Your task to perform on an android device: toggle data saver in the chrome app Image 0: 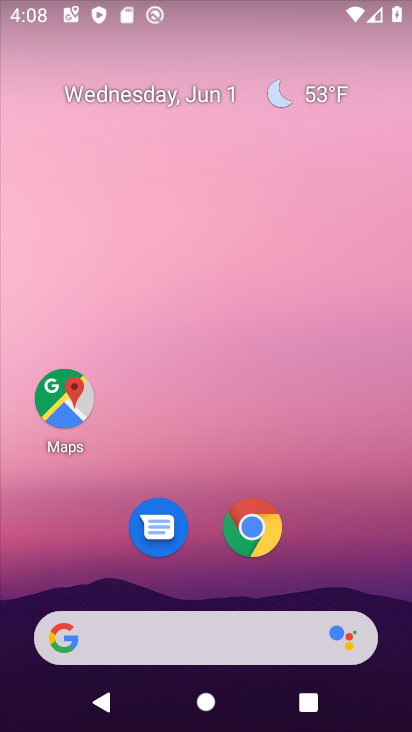
Step 0: drag from (289, 562) to (341, 102)
Your task to perform on an android device: toggle data saver in the chrome app Image 1: 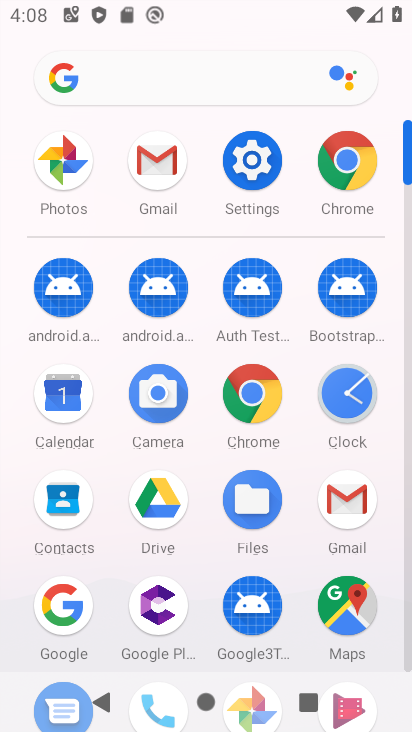
Step 1: click (257, 380)
Your task to perform on an android device: toggle data saver in the chrome app Image 2: 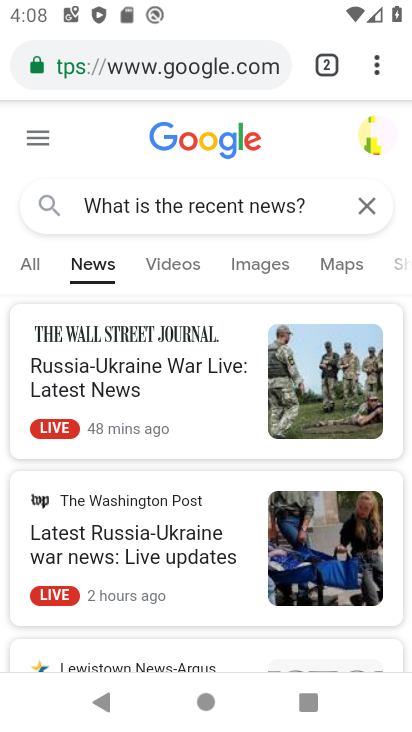
Step 2: drag from (373, 72) to (200, 577)
Your task to perform on an android device: toggle data saver in the chrome app Image 3: 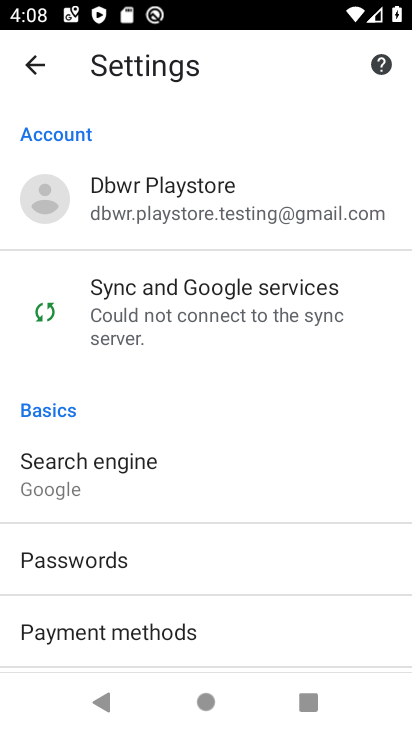
Step 3: drag from (275, 604) to (312, 169)
Your task to perform on an android device: toggle data saver in the chrome app Image 4: 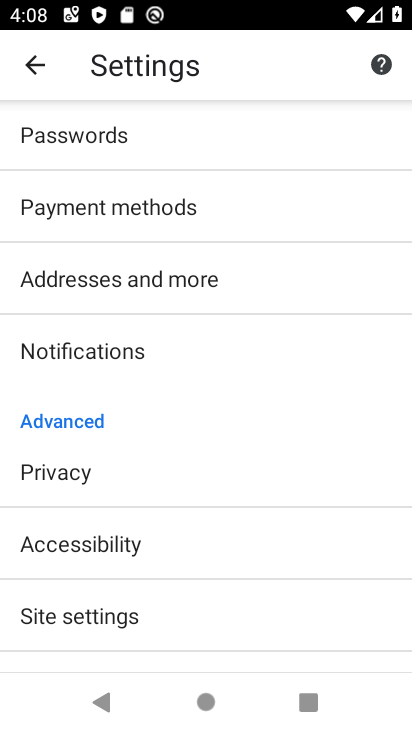
Step 4: drag from (212, 570) to (266, 256)
Your task to perform on an android device: toggle data saver in the chrome app Image 5: 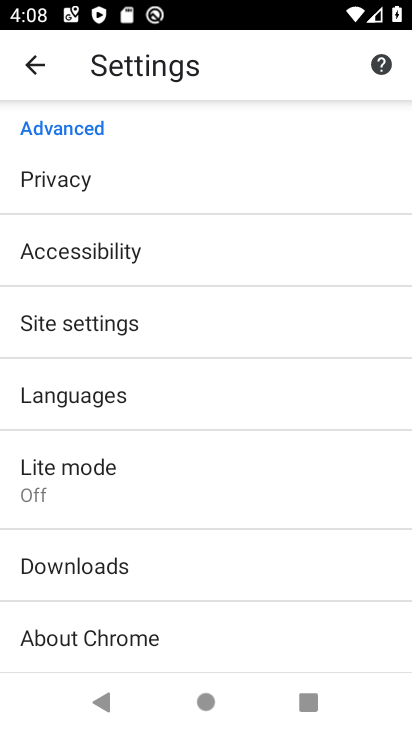
Step 5: click (66, 461)
Your task to perform on an android device: toggle data saver in the chrome app Image 6: 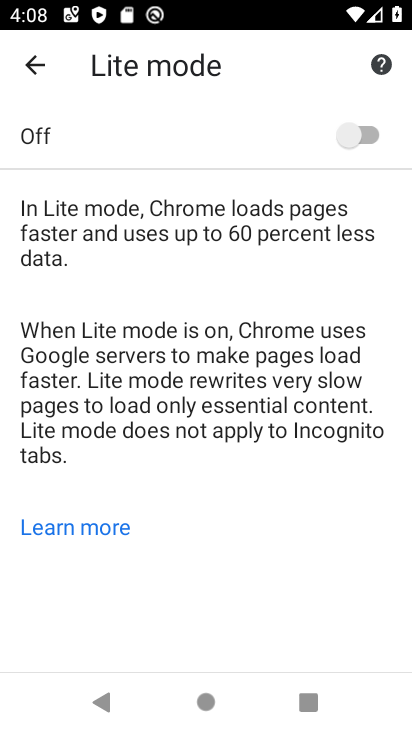
Step 6: click (370, 132)
Your task to perform on an android device: toggle data saver in the chrome app Image 7: 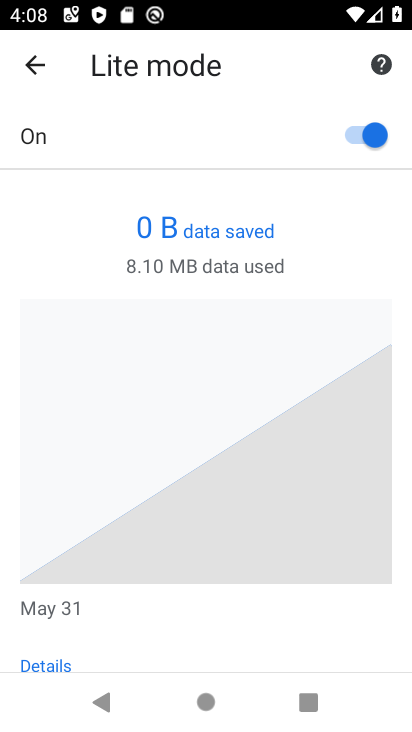
Step 7: task complete